Your task to perform on an android device: Show me popular games on the Play Store Image 0: 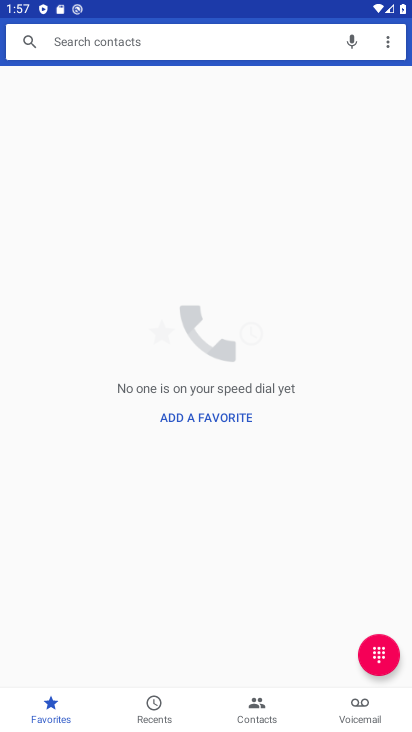
Step 0: press home button
Your task to perform on an android device: Show me popular games on the Play Store Image 1: 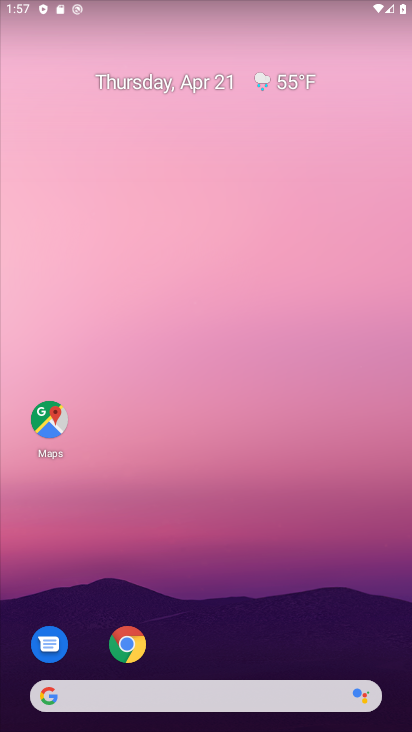
Step 1: drag from (270, 605) to (219, 48)
Your task to perform on an android device: Show me popular games on the Play Store Image 2: 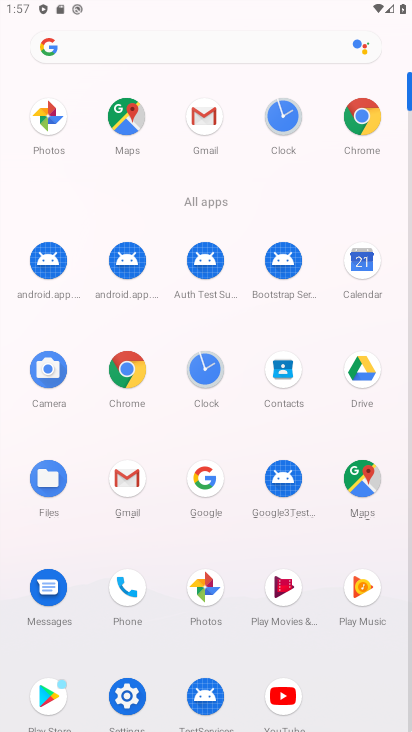
Step 2: drag from (172, 194) to (209, 4)
Your task to perform on an android device: Show me popular games on the Play Store Image 3: 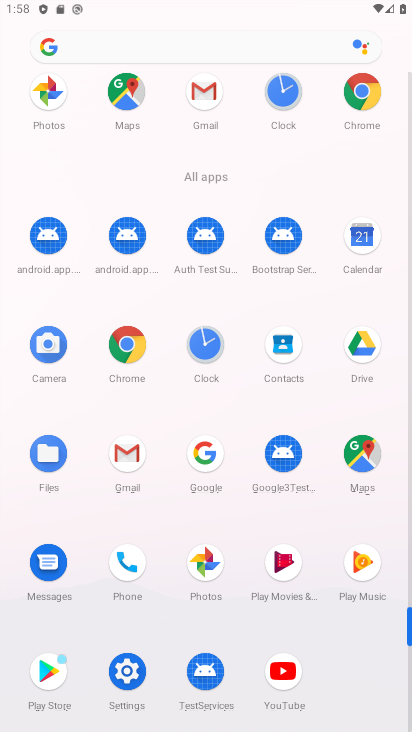
Step 3: click (52, 670)
Your task to perform on an android device: Show me popular games on the Play Store Image 4: 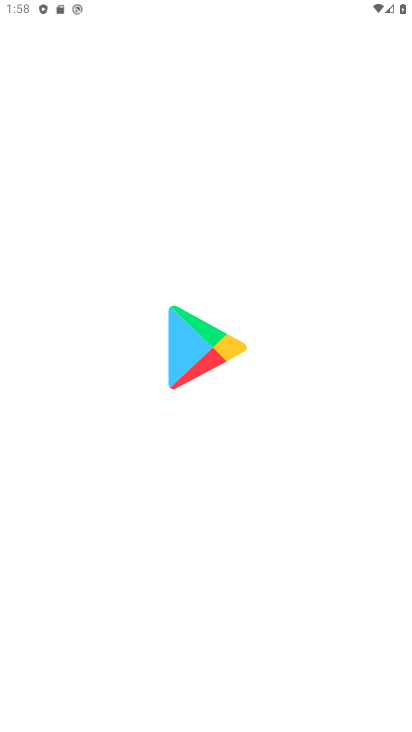
Step 4: click (52, 670)
Your task to perform on an android device: Show me popular games on the Play Store Image 5: 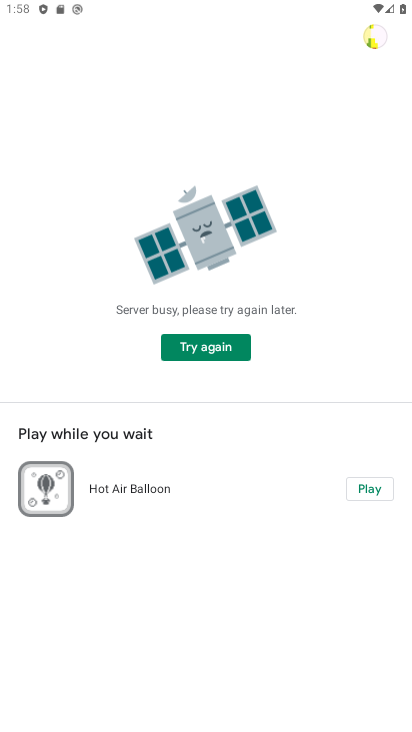
Step 5: click (191, 351)
Your task to perform on an android device: Show me popular games on the Play Store Image 6: 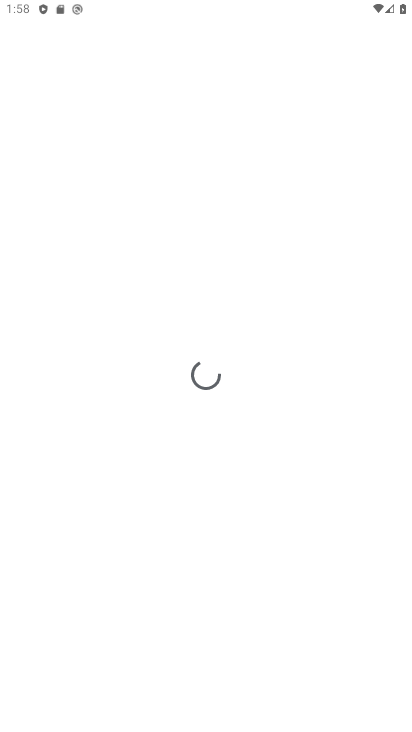
Step 6: task complete